Your task to perform on an android device: Is it going to rain this weekend? Image 0: 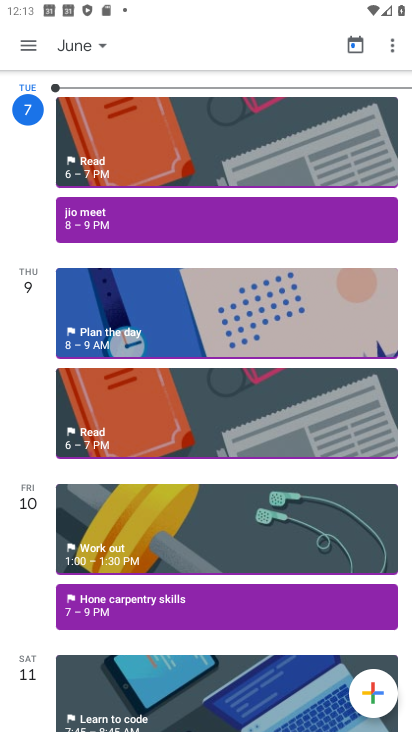
Step 0: press home button
Your task to perform on an android device: Is it going to rain this weekend? Image 1: 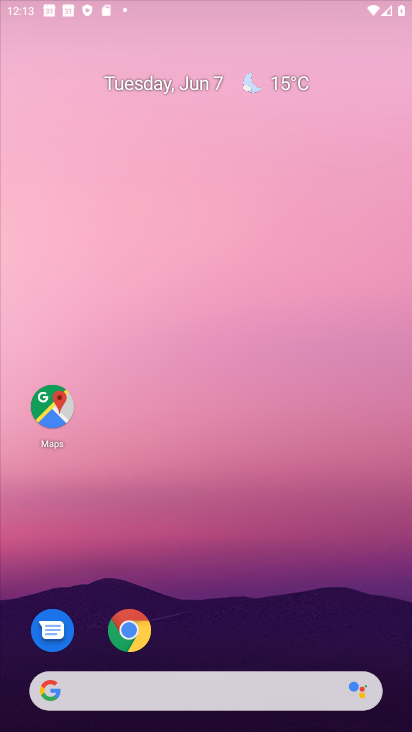
Step 1: drag from (310, 560) to (269, 165)
Your task to perform on an android device: Is it going to rain this weekend? Image 2: 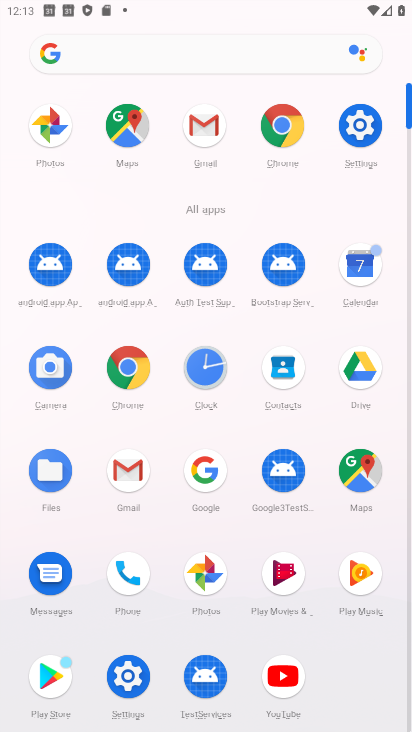
Step 2: click (137, 369)
Your task to perform on an android device: Is it going to rain this weekend? Image 3: 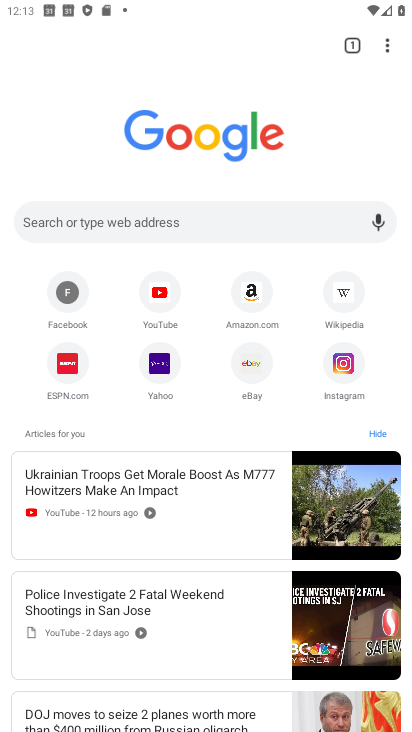
Step 3: click (251, 227)
Your task to perform on an android device: Is it going to rain this weekend? Image 4: 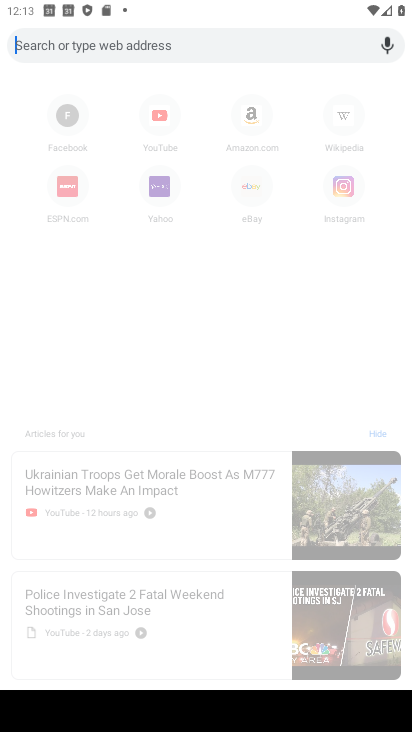
Step 4: type "is it going to rain this weekend "
Your task to perform on an android device: Is it going to rain this weekend? Image 5: 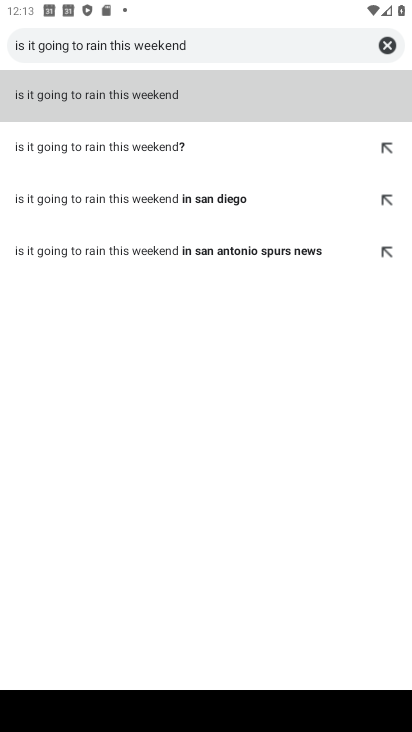
Step 5: click (142, 96)
Your task to perform on an android device: Is it going to rain this weekend? Image 6: 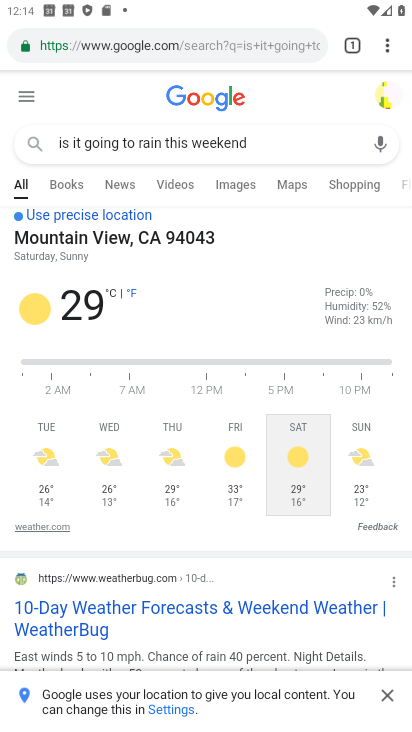
Step 6: task complete